Your task to perform on an android device: Turn off the flashlight Image 0: 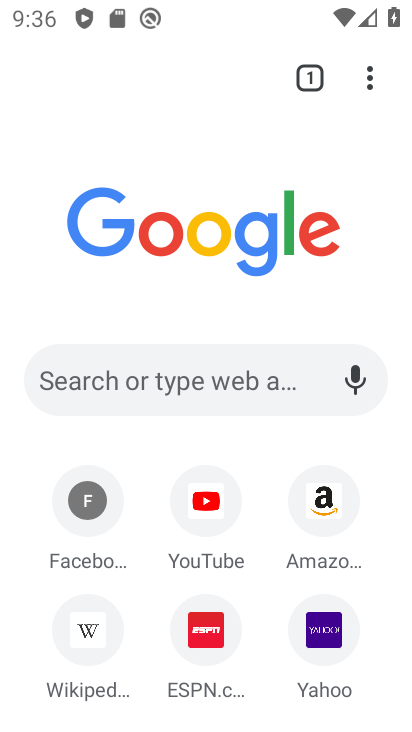
Step 0: press home button
Your task to perform on an android device: Turn off the flashlight Image 1: 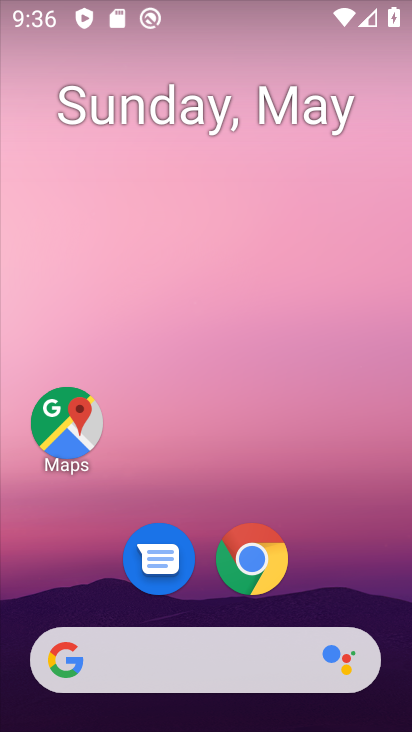
Step 1: drag from (353, 570) to (225, 131)
Your task to perform on an android device: Turn off the flashlight Image 2: 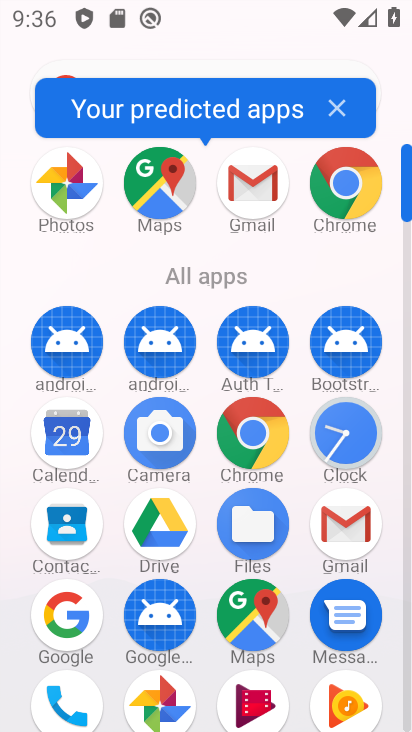
Step 2: drag from (272, 9) to (230, 594)
Your task to perform on an android device: Turn off the flashlight Image 3: 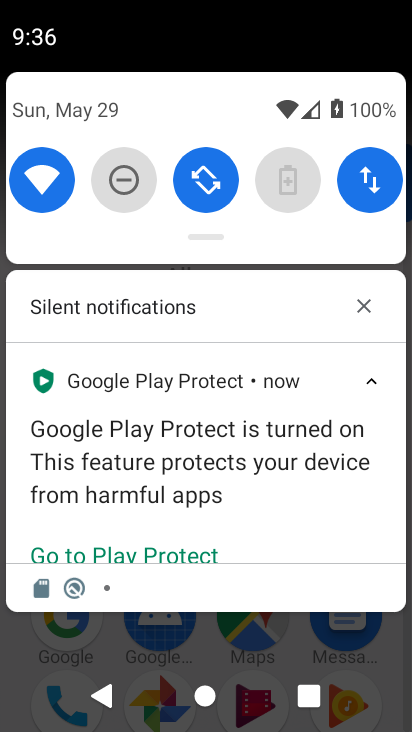
Step 3: drag from (172, 214) to (214, 617)
Your task to perform on an android device: Turn off the flashlight Image 4: 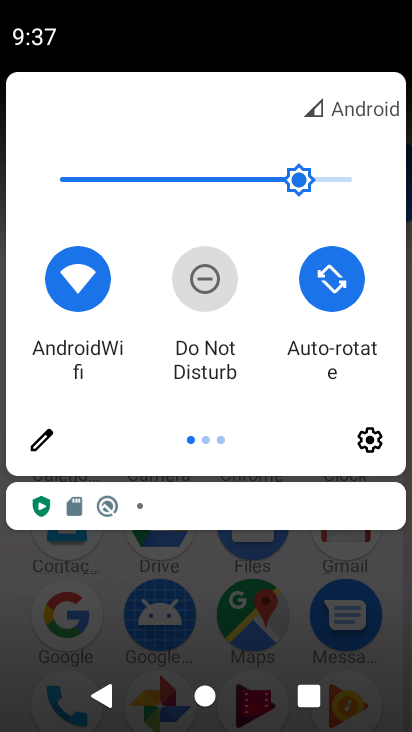
Step 4: click (38, 439)
Your task to perform on an android device: Turn off the flashlight Image 5: 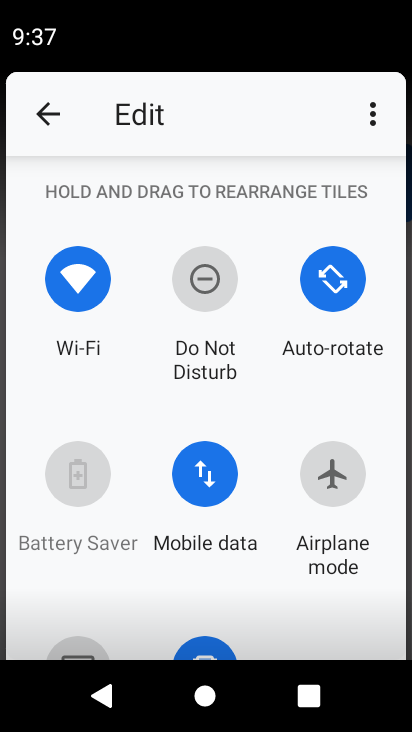
Step 5: task complete